Your task to perform on an android device: turn on showing notifications on the lock screen Image 0: 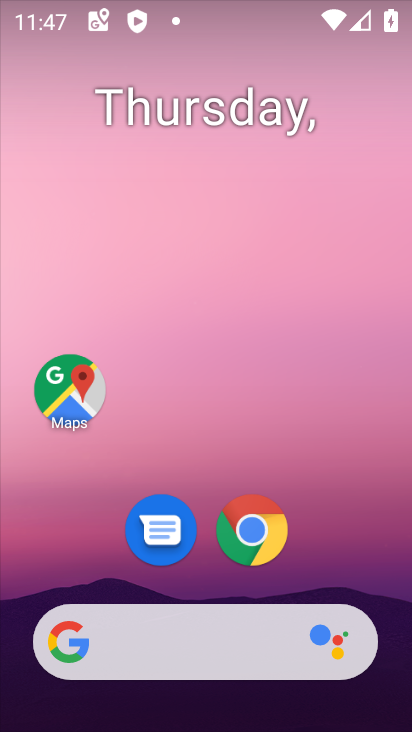
Step 0: drag from (324, 538) to (218, 78)
Your task to perform on an android device: turn on showing notifications on the lock screen Image 1: 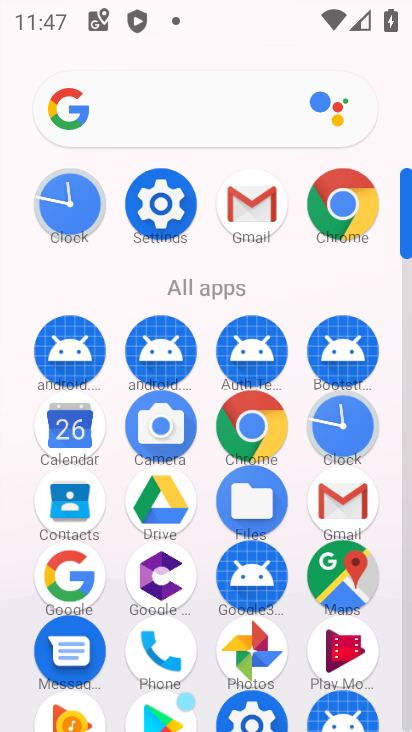
Step 1: click (163, 204)
Your task to perform on an android device: turn on showing notifications on the lock screen Image 2: 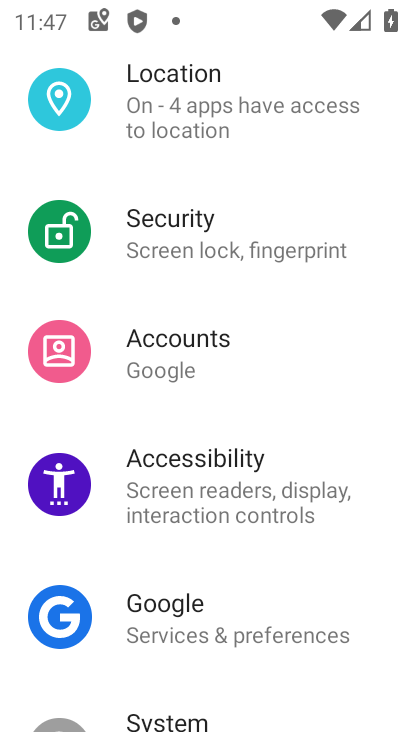
Step 2: drag from (292, 305) to (287, 419)
Your task to perform on an android device: turn on showing notifications on the lock screen Image 3: 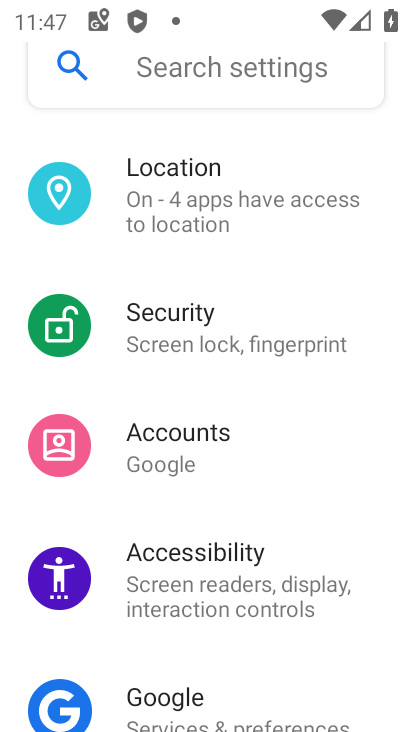
Step 3: drag from (237, 267) to (242, 386)
Your task to perform on an android device: turn on showing notifications on the lock screen Image 4: 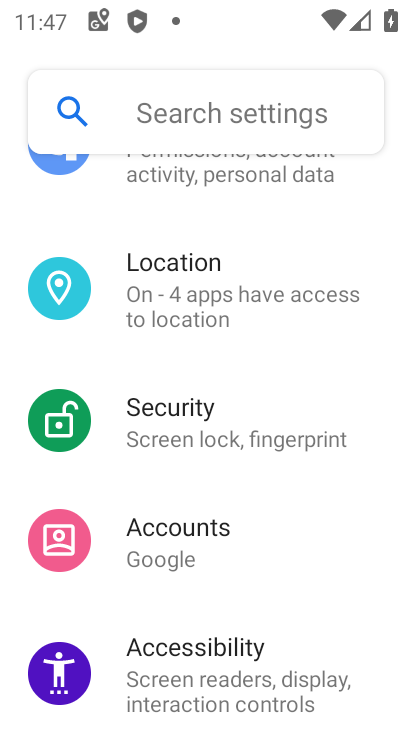
Step 4: drag from (237, 231) to (268, 422)
Your task to perform on an android device: turn on showing notifications on the lock screen Image 5: 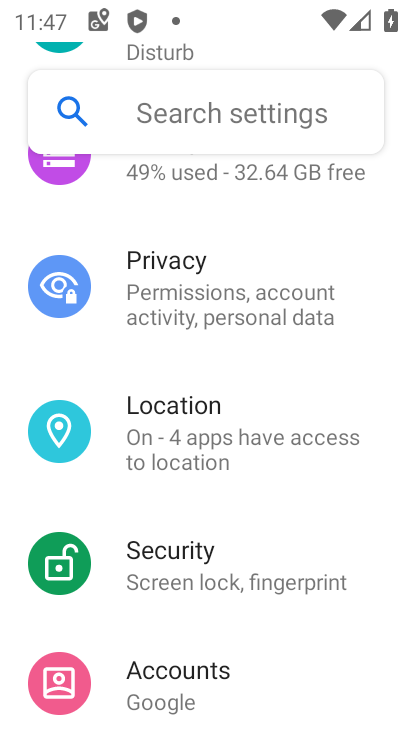
Step 5: drag from (250, 263) to (235, 432)
Your task to perform on an android device: turn on showing notifications on the lock screen Image 6: 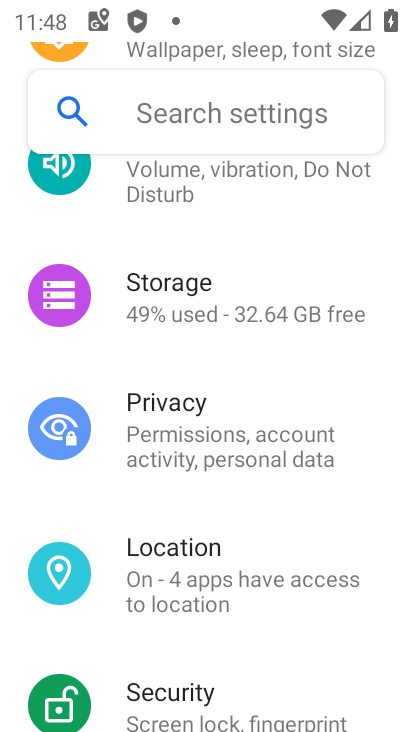
Step 6: drag from (213, 261) to (216, 384)
Your task to perform on an android device: turn on showing notifications on the lock screen Image 7: 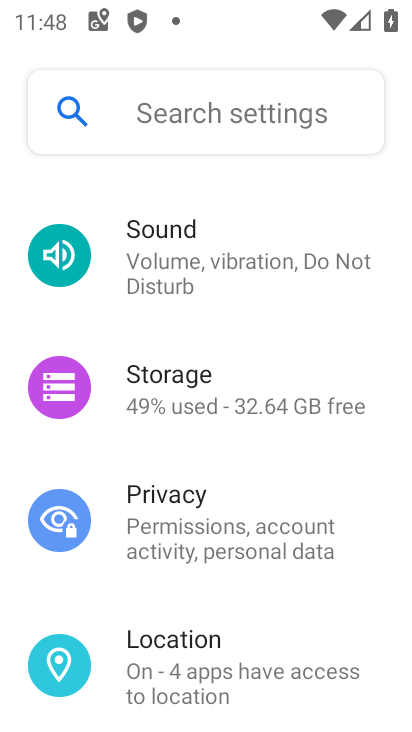
Step 7: drag from (234, 227) to (275, 372)
Your task to perform on an android device: turn on showing notifications on the lock screen Image 8: 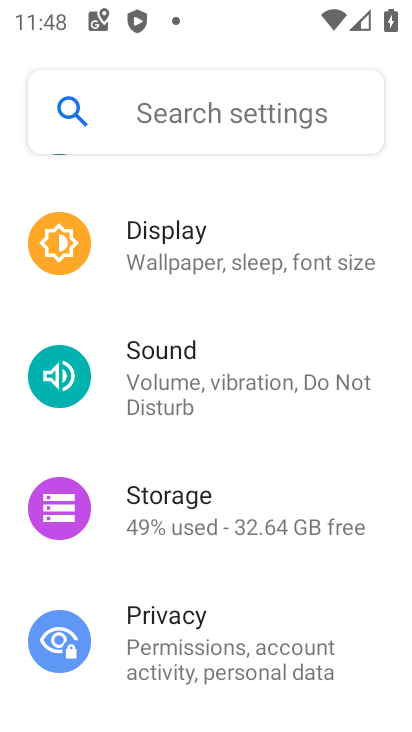
Step 8: drag from (255, 225) to (284, 373)
Your task to perform on an android device: turn on showing notifications on the lock screen Image 9: 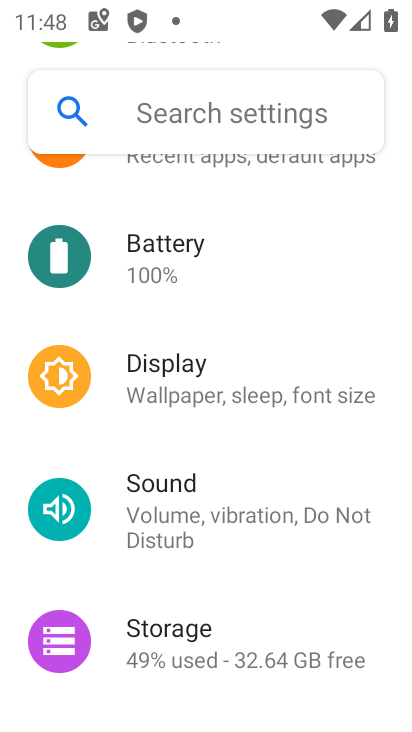
Step 9: drag from (246, 238) to (262, 380)
Your task to perform on an android device: turn on showing notifications on the lock screen Image 10: 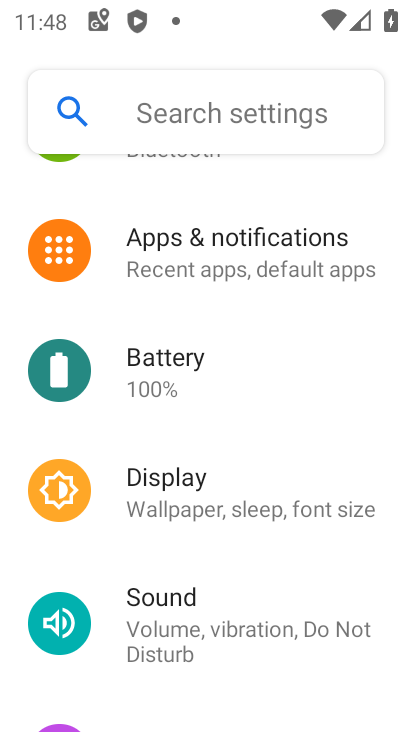
Step 10: click (247, 259)
Your task to perform on an android device: turn on showing notifications on the lock screen Image 11: 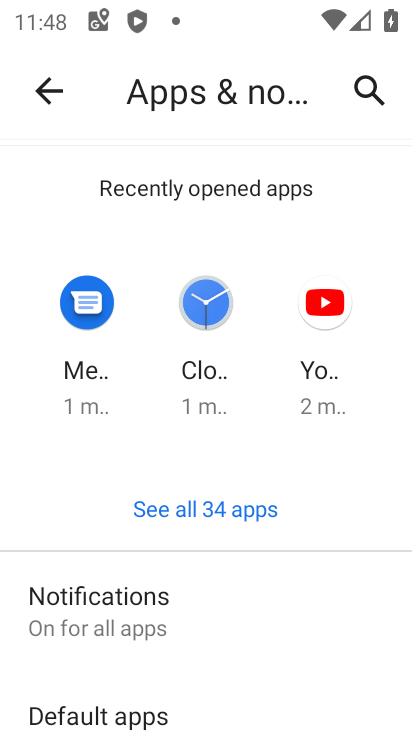
Step 11: click (124, 605)
Your task to perform on an android device: turn on showing notifications on the lock screen Image 12: 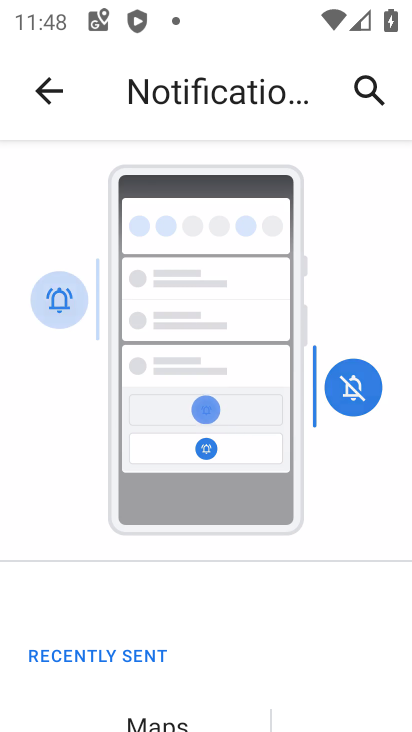
Step 12: drag from (204, 632) to (267, 511)
Your task to perform on an android device: turn on showing notifications on the lock screen Image 13: 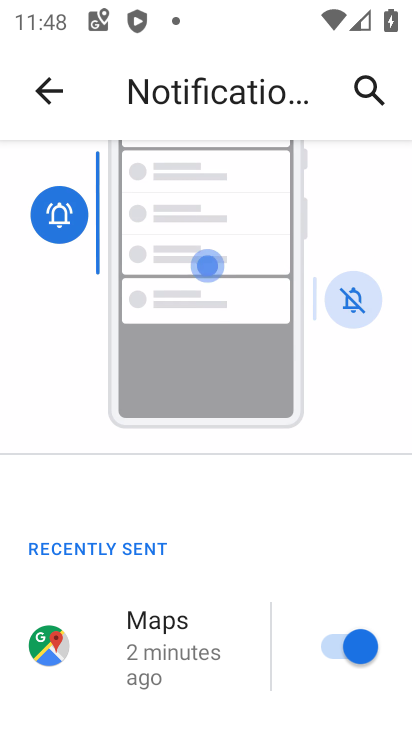
Step 13: drag from (226, 557) to (251, 414)
Your task to perform on an android device: turn on showing notifications on the lock screen Image 14: 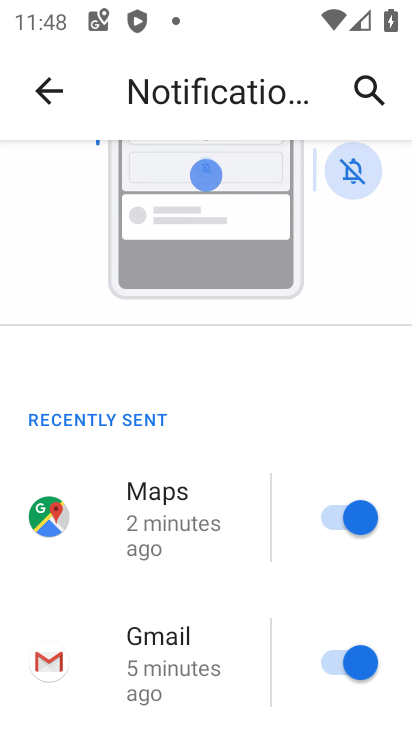
Step 14: drag from (185, 584) to (257, 464)
Your task to perform on an android device: turn on showing notifications on the lock screen Image 15: 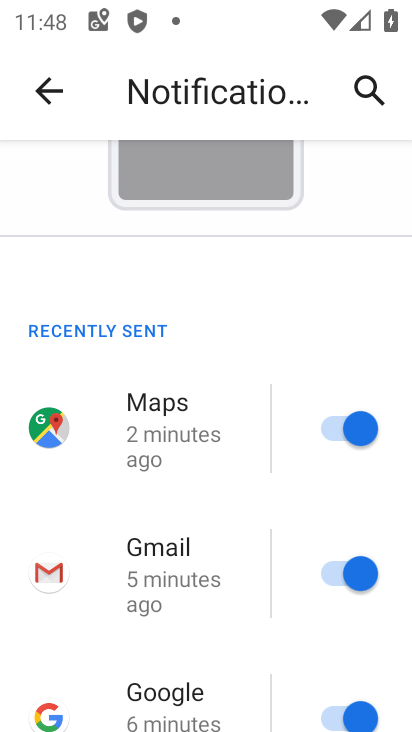
Step 15: drag from (179, 639) to (216, 465)
Your task to perform on an android device: turn on showing notifications on the lock screen Image 16: 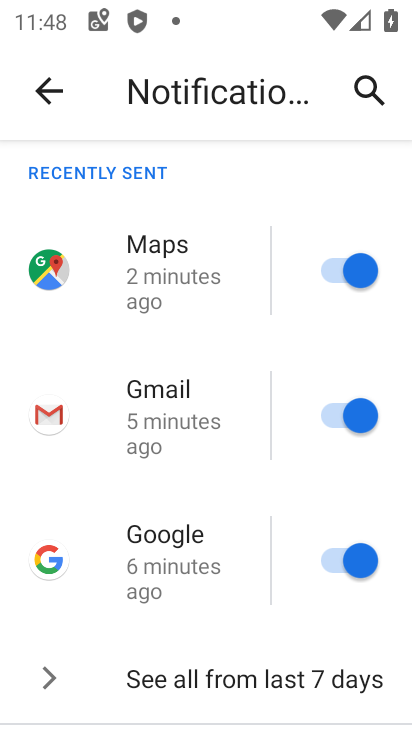
Step 16: drag from (185, 611) to (216, 451)
Your task to perform on an android device: turn on showing notifications on the lock screen Image 17: 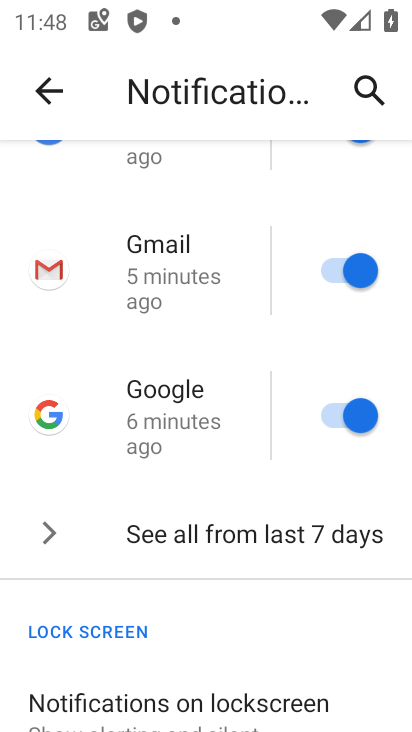
Step 17: drag from (197, 639) to (223, 508)
Your task to perform on an android device: turn on showing notifications on the lock screen Image 18: 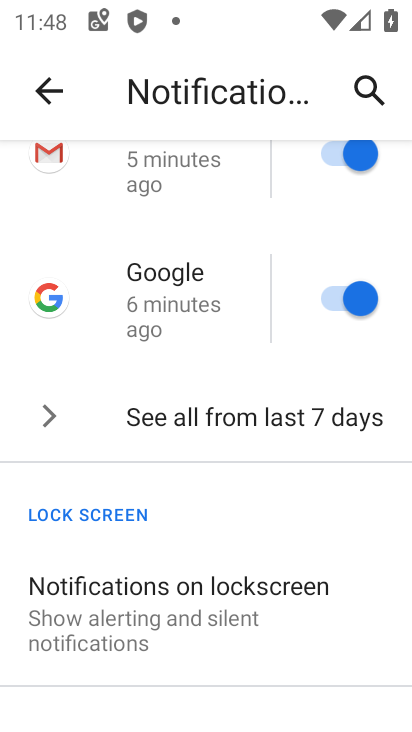
Step 18: click (193, 589)
Your task to perform on an android device: turn on showing notifications on the lock screen Image 19: 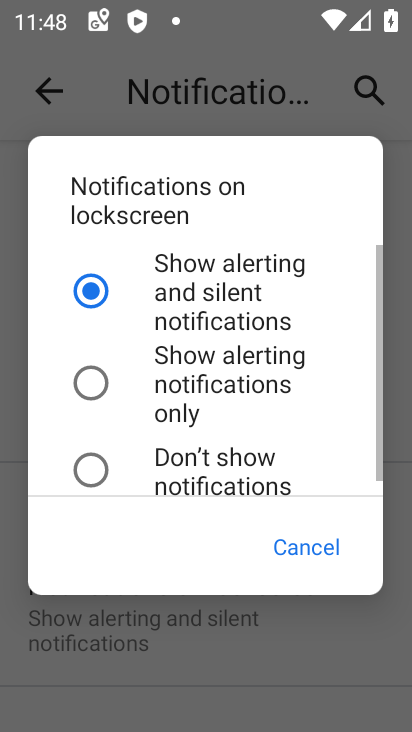
Step 19: click (93, 290)
Your task to perform on an android device: turn on showing notifications on the lock screen Image 20: 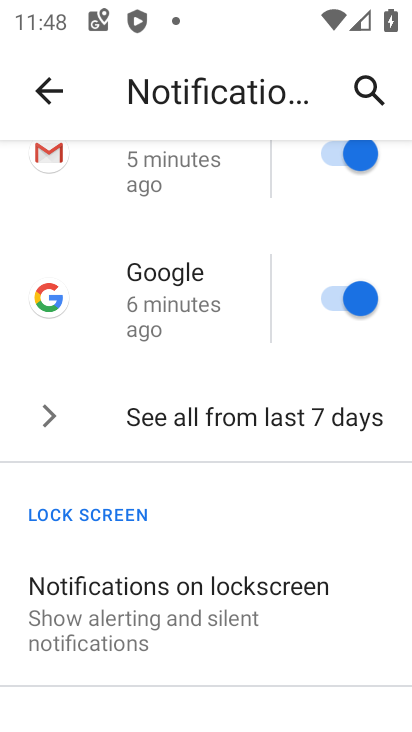
Step 20: task complete